Your task to perform on an android device: turn off translation in the chrome app Image 0: 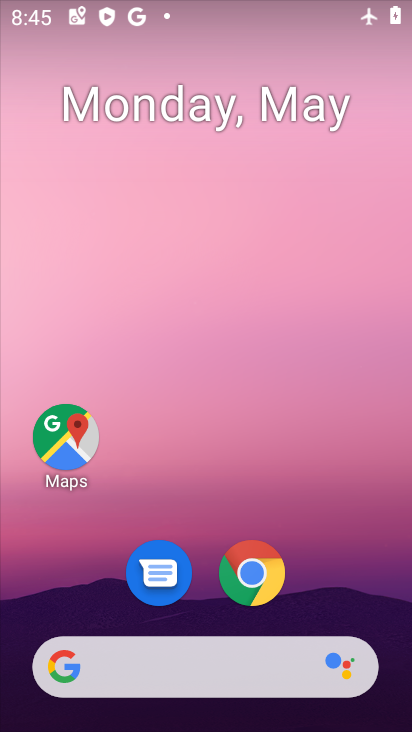
Step 0: click (271, 564)
Your task to perform on an android device: turn off translation in the chrome app Image 1: 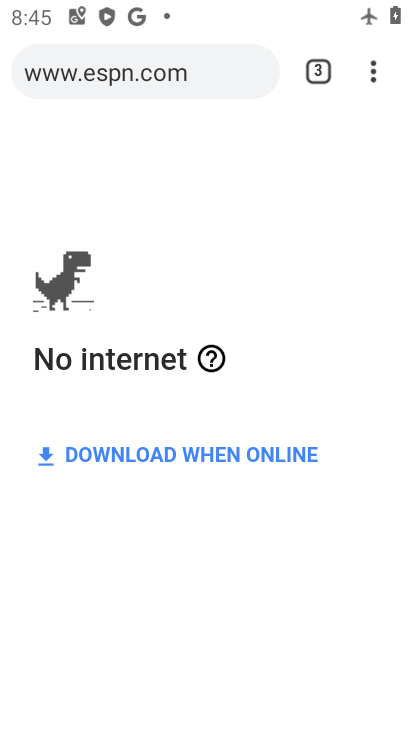
Step 1: click (386, 79)
Your task to perform on an android device: turn off translation in the chrome app Image 2: 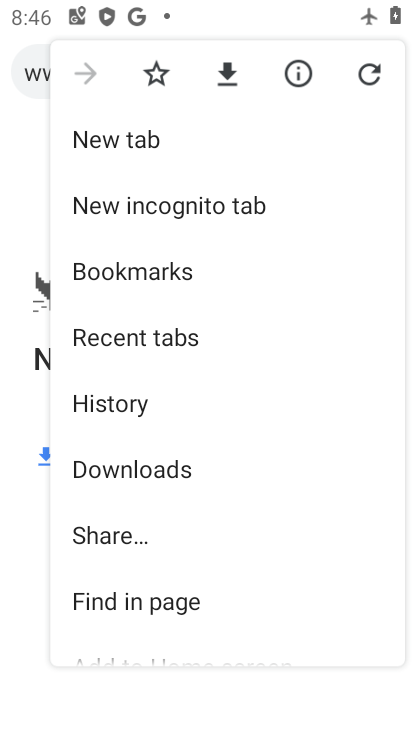
Step 2: drag from (249, 545) to (202, 198)
Your task to perform on an android device: turn off translation in the chrome app Image 3: 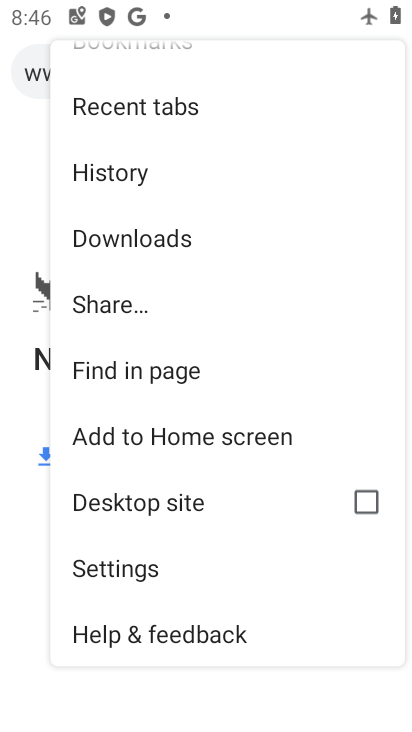
Step 3: click (151, 569)
Your task to perform on an android device: turn off translation in the chrome app Image 4: 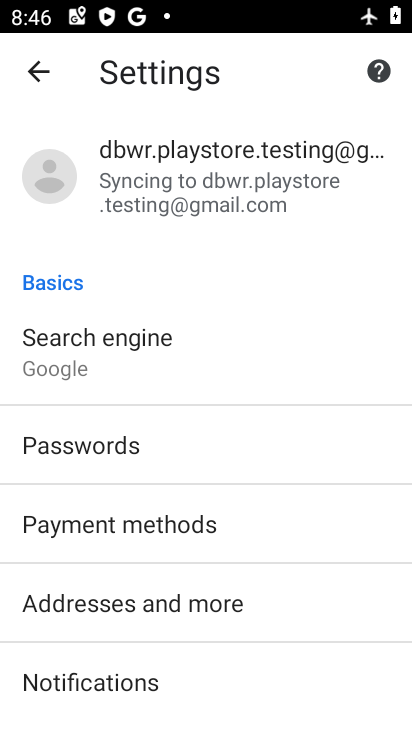
Step 4: drag from (189, 563) to (226, 227)
Your task to perform on an android device: turn off translation in the chrome app Image 5: 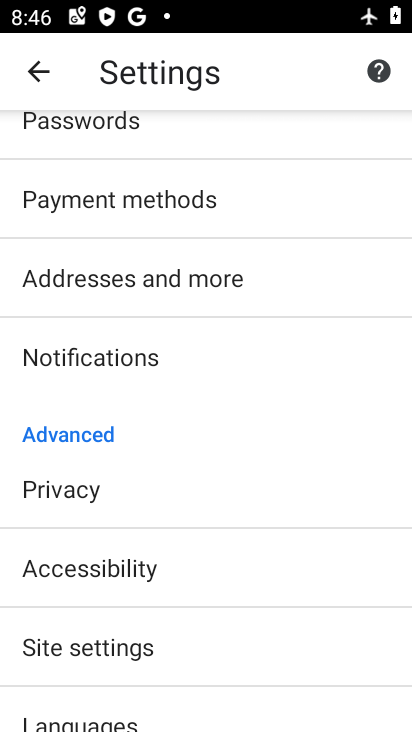
Step 5: click (127, 363)
Your task to perform on an android device: turn off translation in the chrome app Image 6: 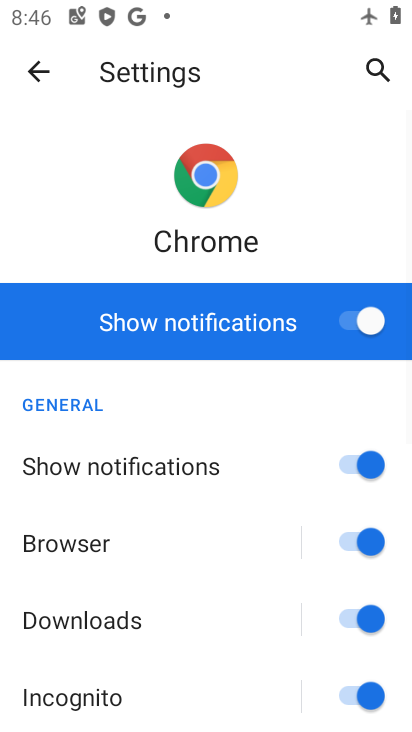
Step 6: click (343, 336)
Your task to perform on an android device: turn off translation in the chrome app Image 7: 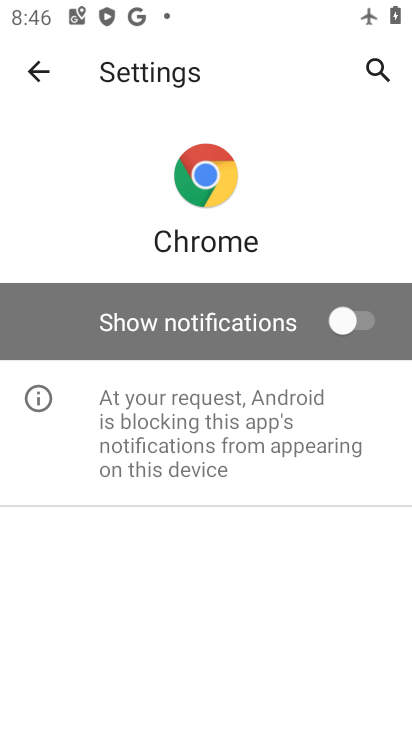
Step 7: task complete